Your task to perform on an android device: Do I have any events today? Image 0: 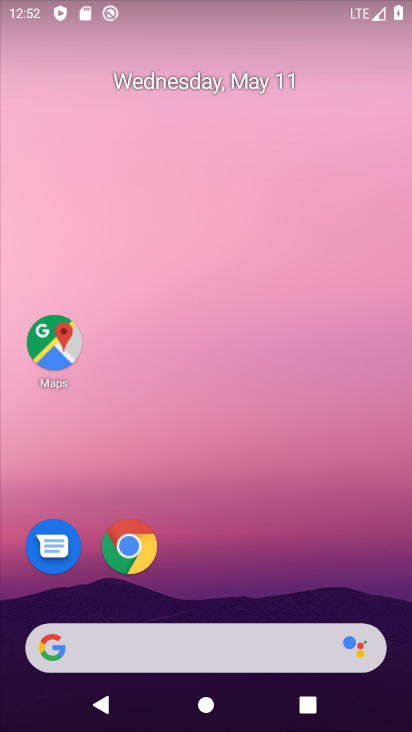
Step 0: drag from (278, 655) to (190, 353)
Your task to perform on an android device: Do I have any events today? Image 1: 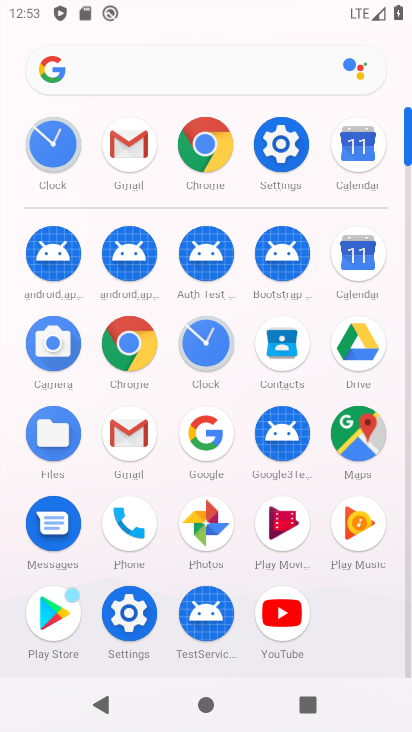
Step 1: click (362, 257)
Your task to perform on an android device: Do I have any events today? Image 2: 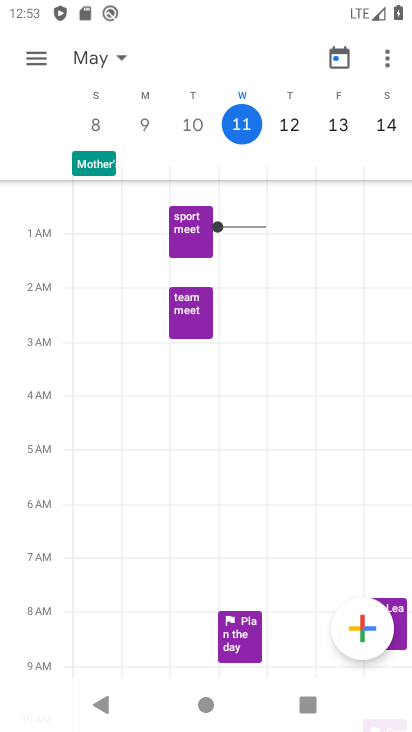
Step 2: click (32, 78)
Your task to perform on an android device: Do I have any events today? Image 3: 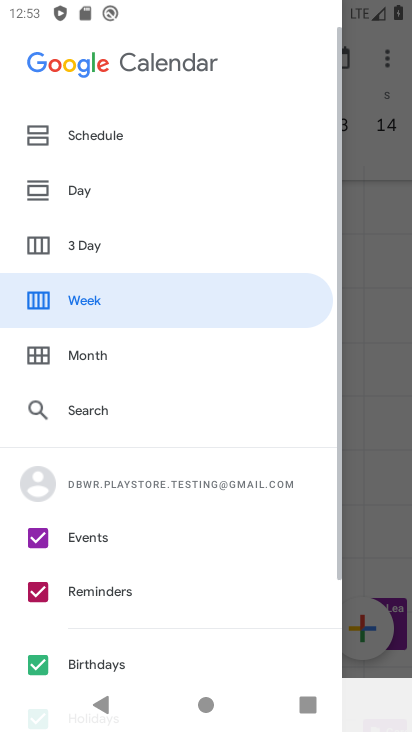
Step 3: click (73, 194)
Your task to perform on an android device: Do I have any events today? Image 4: 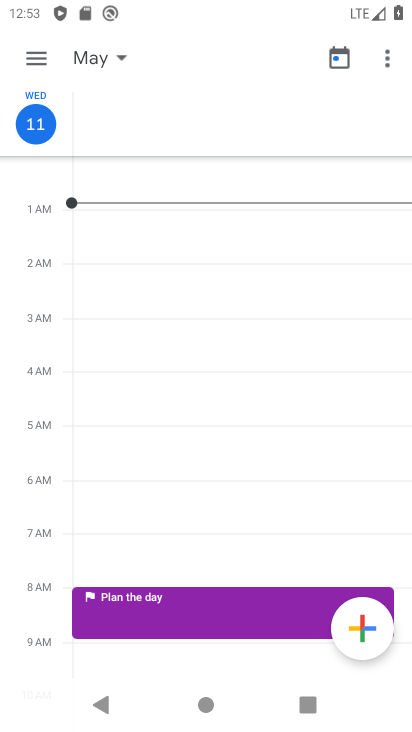
Step 4: task complete